Your task to perform on an android device: Find coffee shops on Maps Image 0: 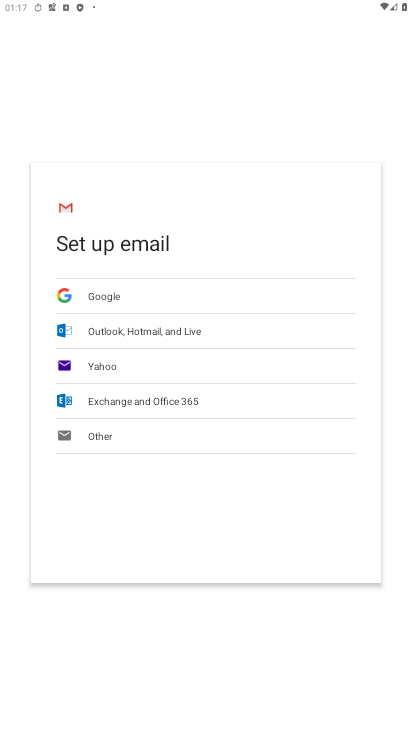
Step 0: press home button
Your task to perform on an android device: Find coffee shops on Maps Image 1: 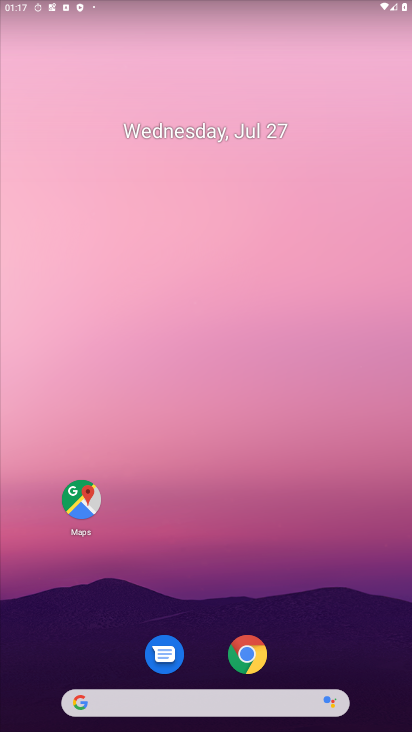
Step 1: drag from (217, 699) to (354, 115)
Your task to perform on an android device: Find coffee shops on Maps Image 2: 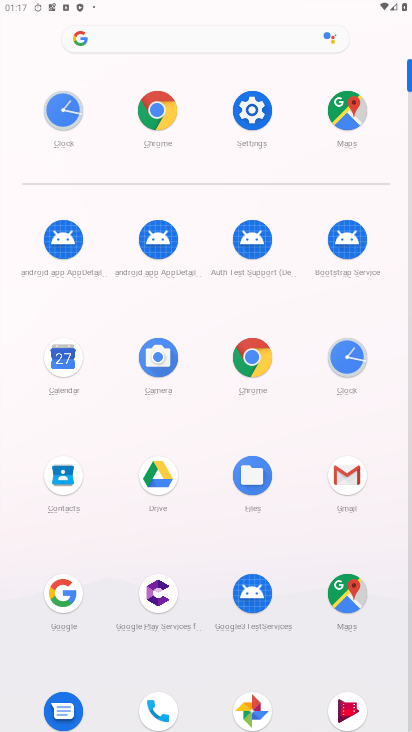
Step 2: click (263, 377)
Your task to perform on an android device: Find coffee shops on Maps Image 3: 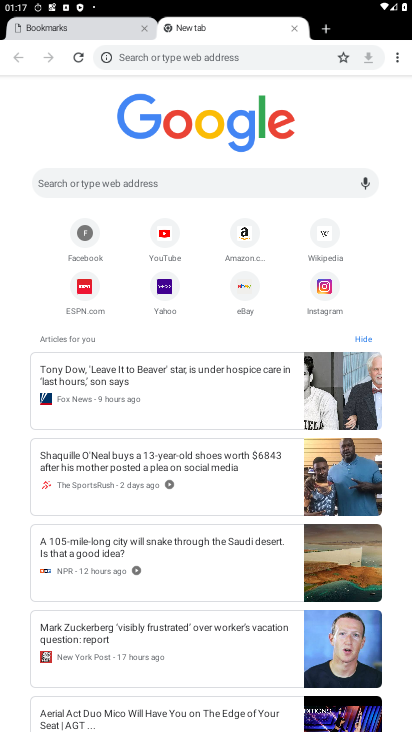
Step 3: click (212, 62)
Your task to perform on an android device: Find coffee shops on Maps Image 4: 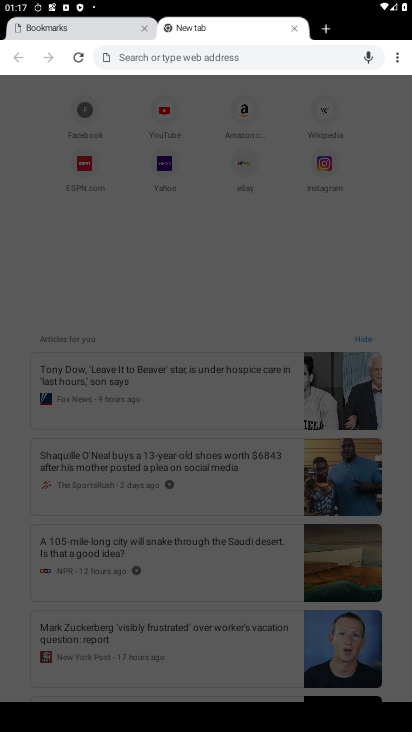
Step 4: type "coffee shops"
Your task to perform on an android device: Find coffee shops on Maps Image 5: 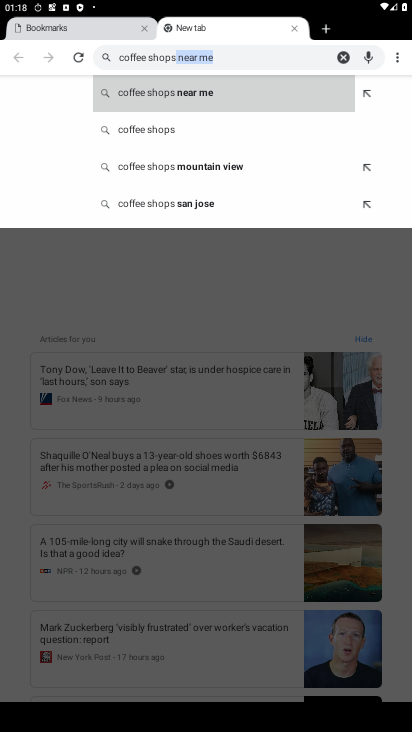
Step 5: click (146, 106)
Your task to perform on an android device: Find coffee shops on Maps Image 6: 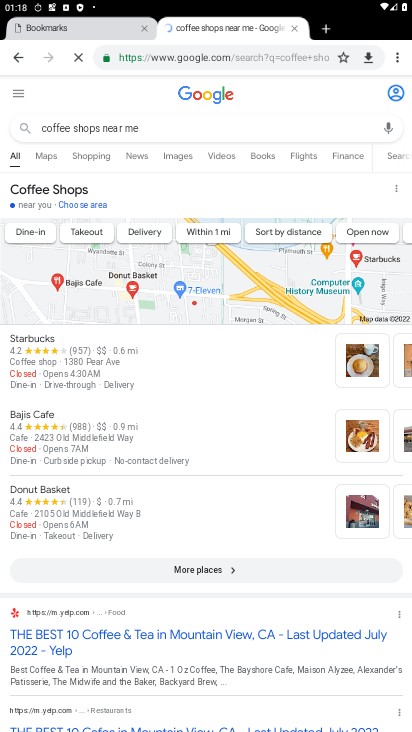
Step 6: task complete